Your task to perform on an android device: What's the weather going to be tomorrow? Image 0: 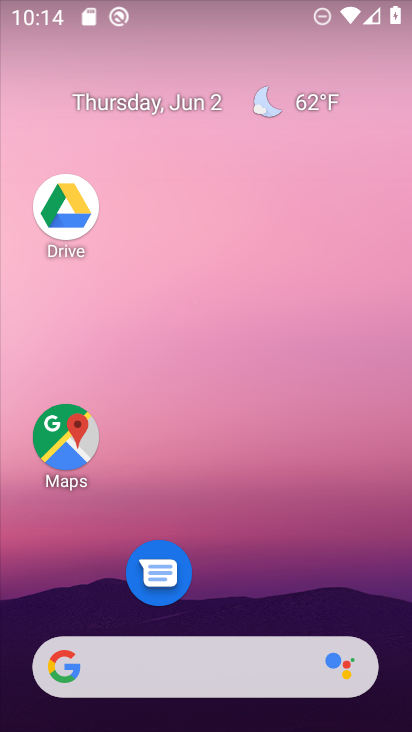
Step 0: click (209, 646)
Your task to perform on an android device: What's the weather going to be tomorrow? Image 1: 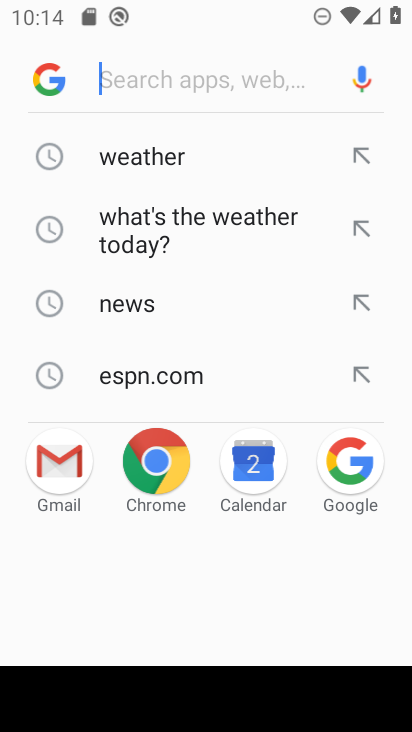
Step 1: click (151, 159)
Your task to perform on an android device: What's the weather going to be tomorrow? Image 2: 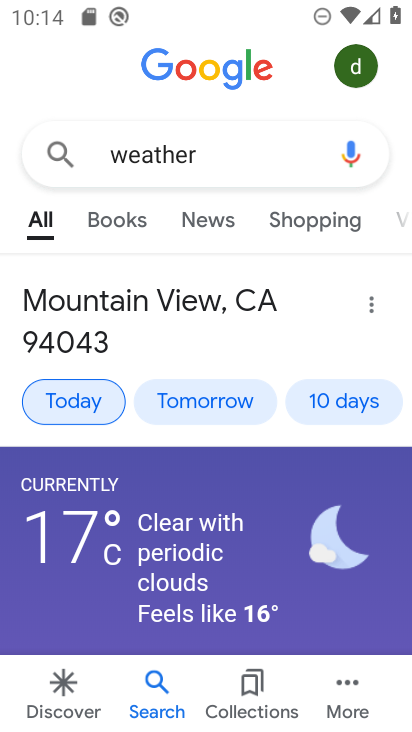
Step 2: click (220, 390)
Your task to perform on an android device: What's the weather going to be tomorrow? Image 3: 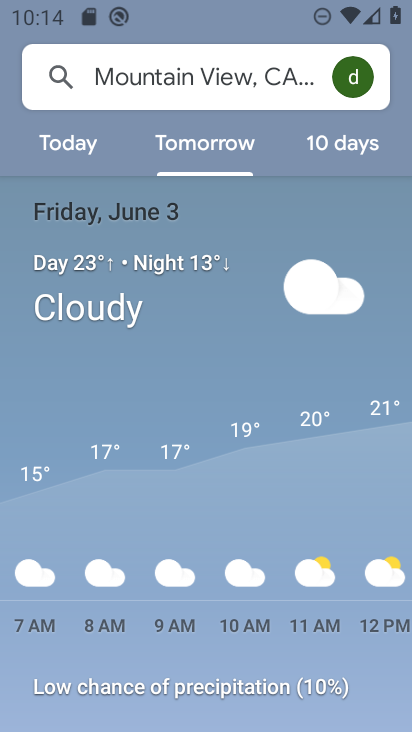
Step 3: task complete